Your task to perform on an android device: change text size in settings app Image 0: 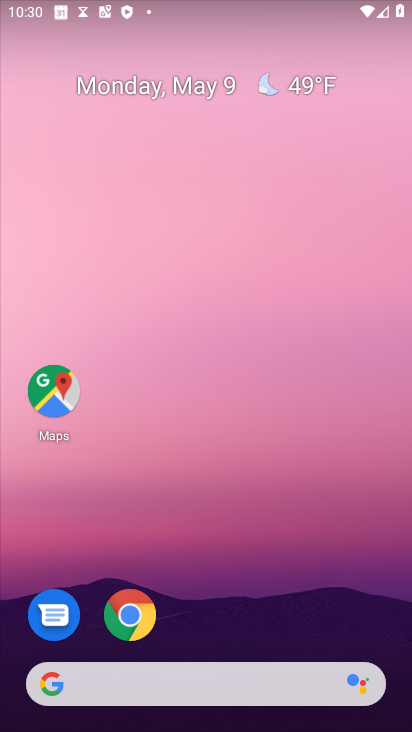
Step 0: drag from (234, 585) to (237, 268)
Your task to perform on an android device: change text size in settings app Image 1: 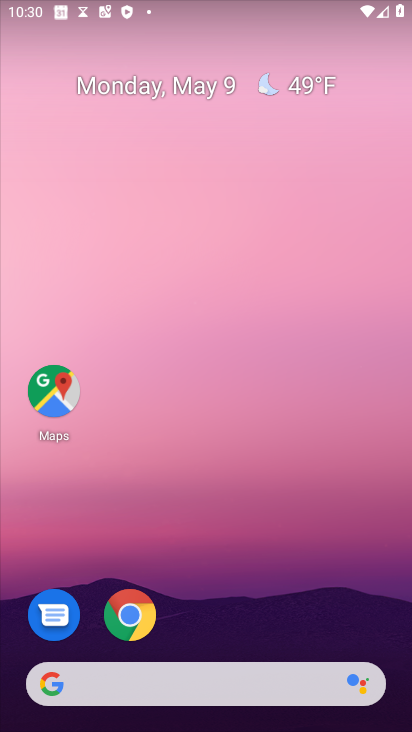
Step 1: drag from (223, 640) to (275, 246)
Your task to perform on an android device: change text size in settings app Image 2: 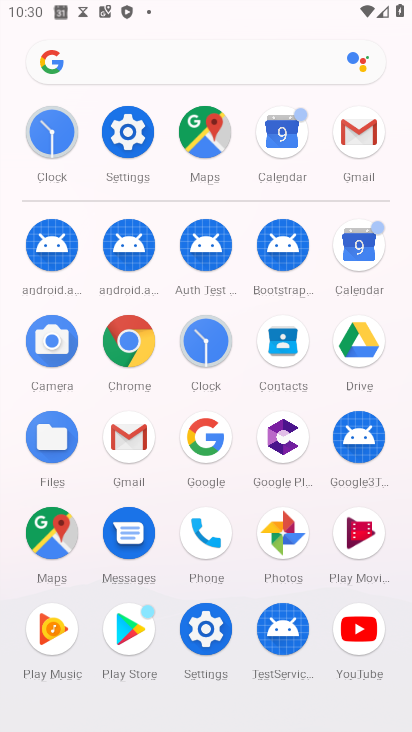
Step 2: click (135, 134)
Your task to perform on an android device: change text size in settings app Image 3: 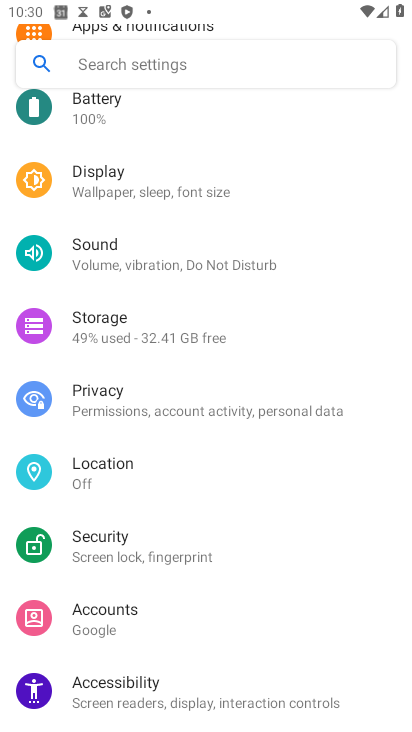
Step 3: click (177, 179)
Your task to perform on an android device: change text size in settings app Image 4: 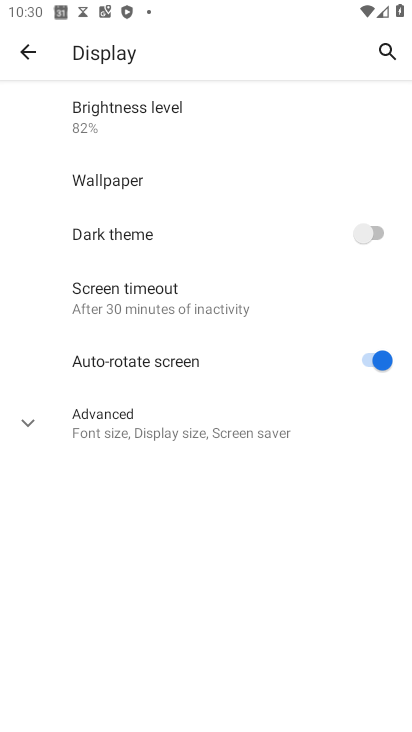
Step 4: click (37, 420)
Your task to perform on an android device: change text size in settings app Image 5: 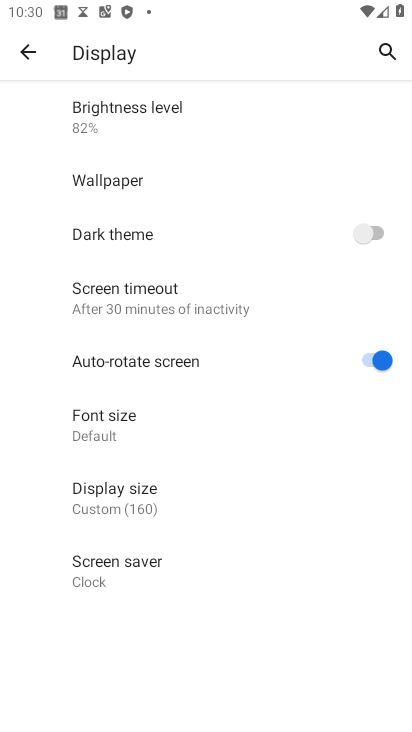
Step 5: click (119, 444)
Your task to perform on an android device: change text size in settings app Image 6: 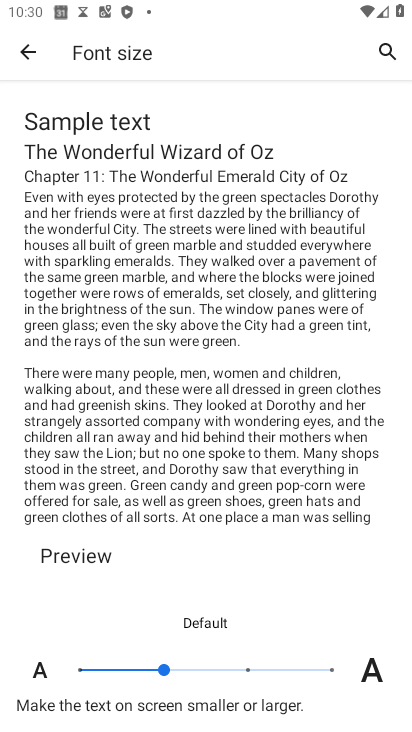
Step 6: click (244, 671)
Your task to perform on an android device: change text size in settings app Image 7: 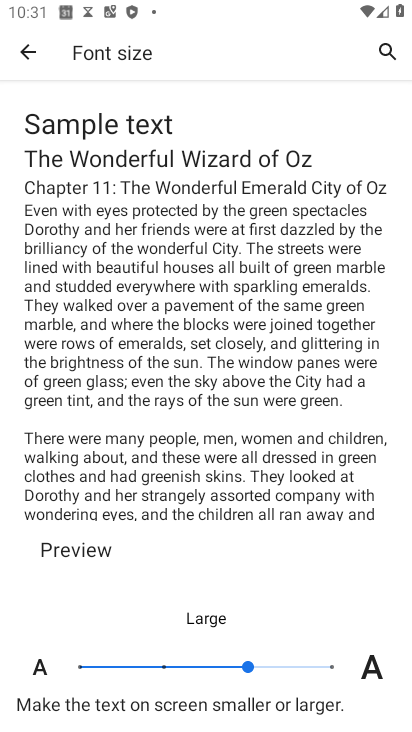
Step 7: task complete